Your task to perform on an android device: Is it going to rain today? Image 0: 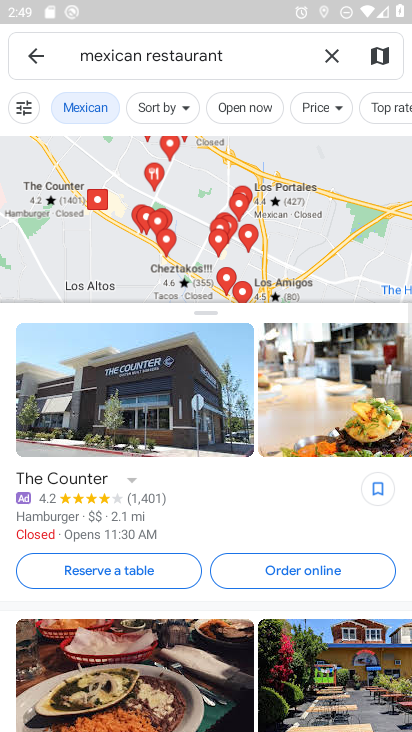
Step 0: press home button
Your task to perform on an android device: Is it going to rain today? Image 1: 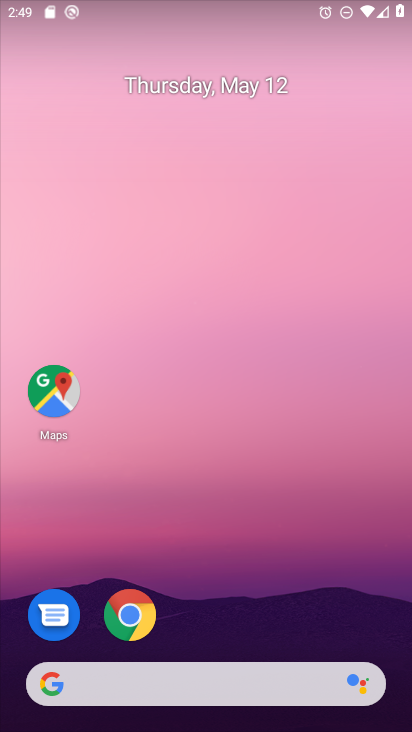
Step 1: drag from (241, 666) to (269, 122)
Your task to perform on an android device: Is it going to rain today? Image 2: 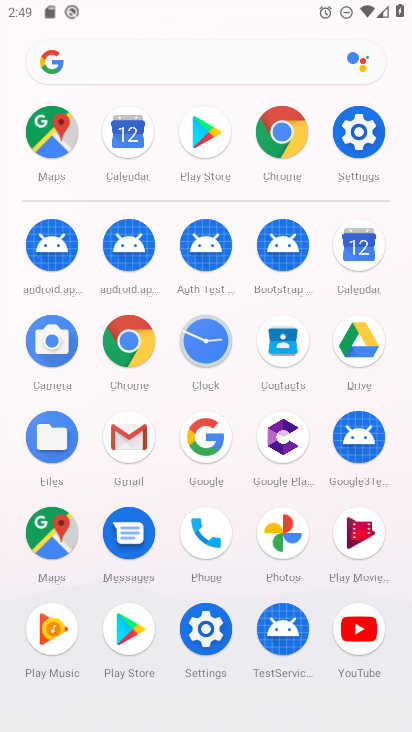
Step 2: click (133, 355)
Your task to perform on an android device: Is it going to rain today? Image 3: 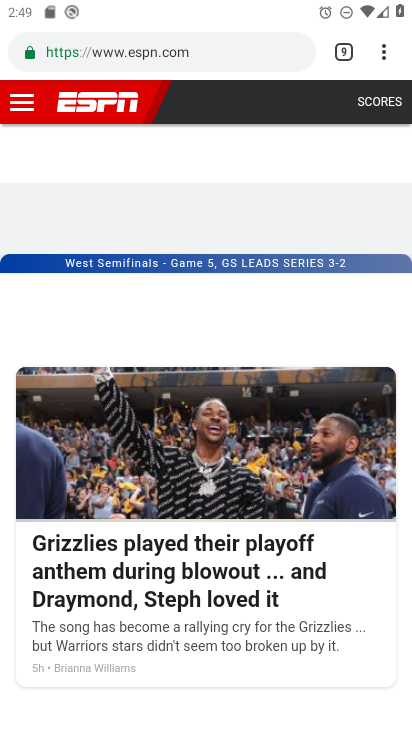
Step 3: click (183, 69)
Your task to perform on an android device: Is it going to rain today? Image 4: 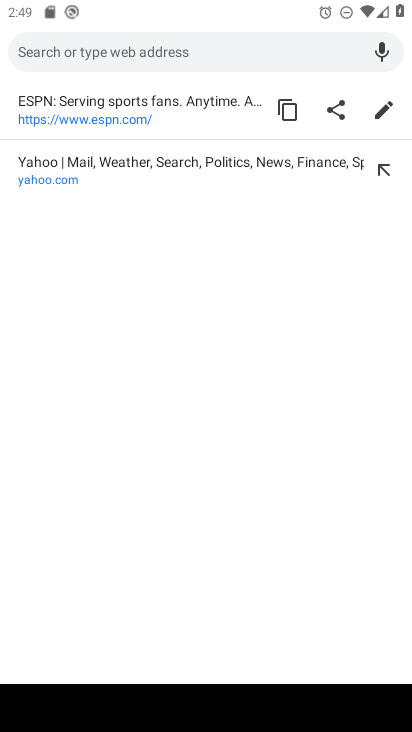
Step 4: type "going to rain today"
Your task to perform on an android device: Is it going to rain today? Image 5: 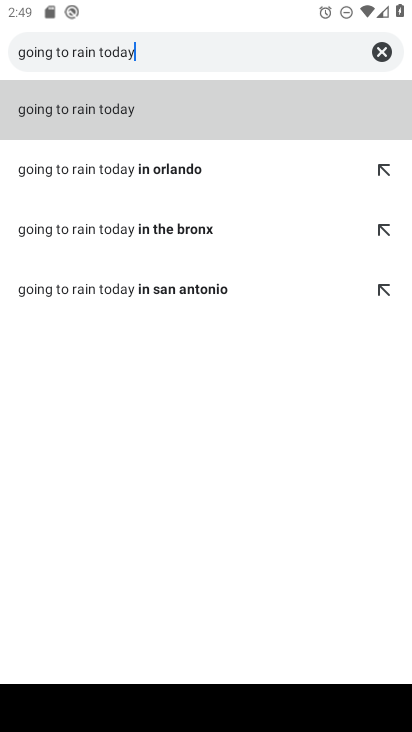
Step 5: click (174, 125)
Your task to perform on an android device: Is it going to rain today? Image 6: 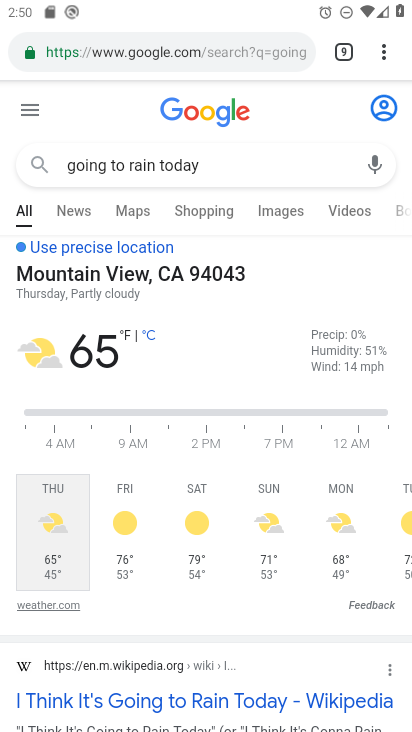
Step 6: task complete